Your task to perform on an android device: Open calendar and show me the fourth week of next month Image 0: 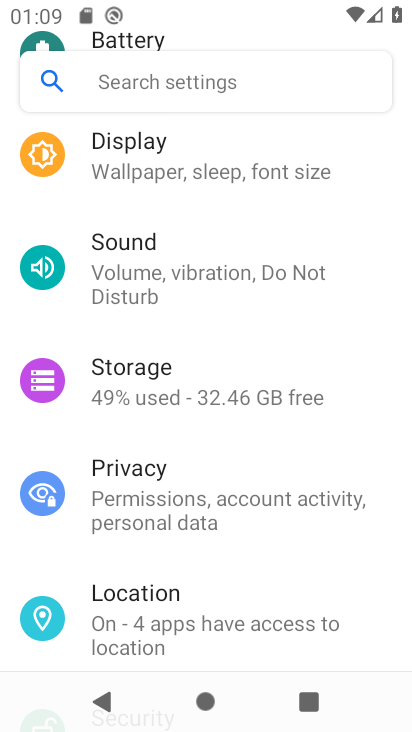
Step 0: press home button
Your task to perform on an android device: Open calendar and show me the fourth week of next month Image 1: 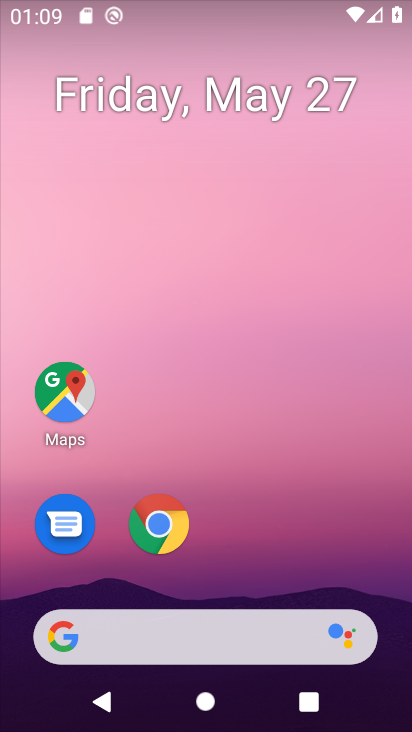
Step 1: drag from (262, 531) to (268, 12)
Your task to perform on an android device: Open calendar and show me the fourth week of next month Image 2: 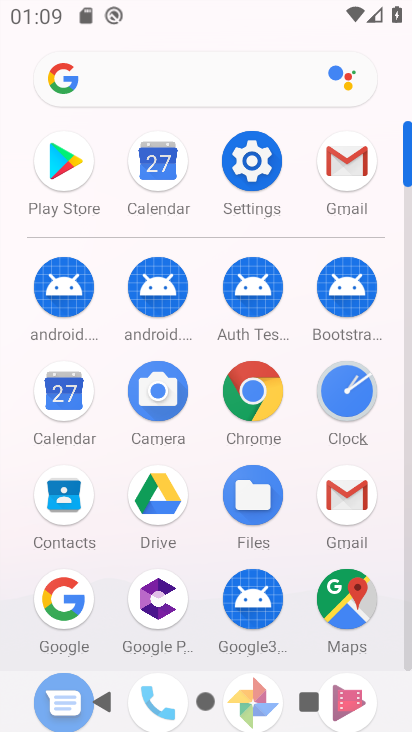
Step 2: click (171, 156)
Your task to perform on an android device: Open calendar and show me the fourth week of next month Image 3: 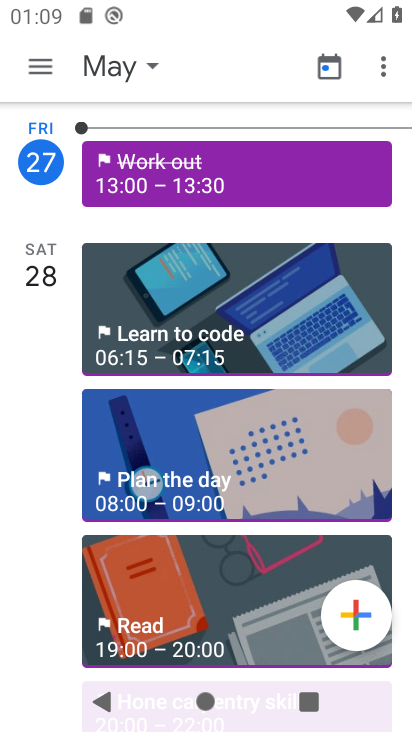
Step 3: click (45, 62)
Your task to perform on an android device: Open calendar and show me the fourth week of next month Image 4: 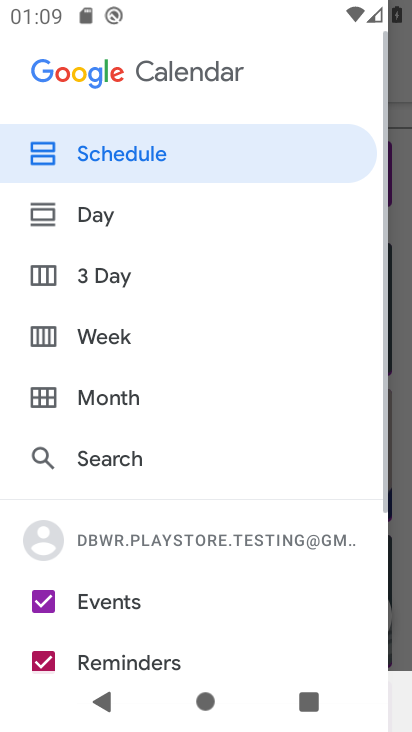
Step 4: click (45, 332)
Your task to perform on an android device: Open calendar and show me the fourth week of next month Image 5: 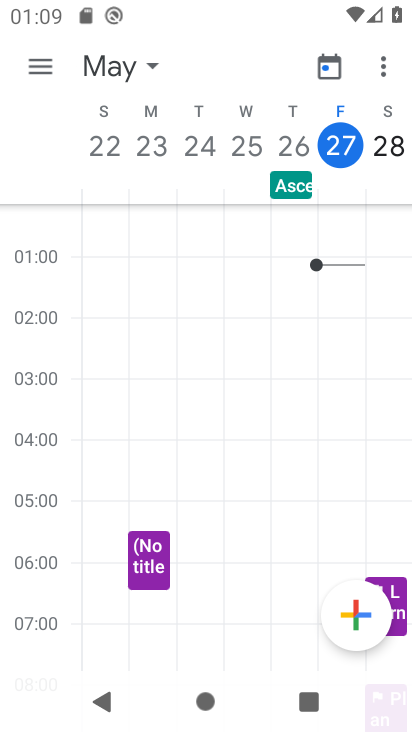
Step 5: task complete